Your task to perform on an android device: Empty the shopping cart on amazon.com. Search for alienware area 51 on amazon.com, select the first entry, and add it to the cart. Image 0: 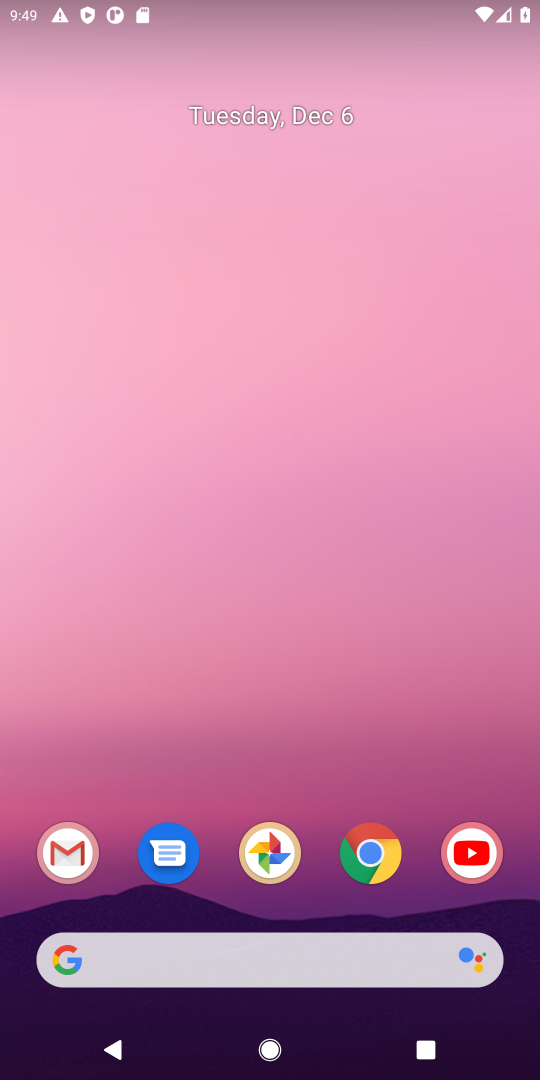
Step 0: click (532, 799)
Your task to perform on an android device: Empty the shopping cart on amazon.com. Search for alienware area 51 on amazon.com, select the first entry, and add it to the cart. Image 1: 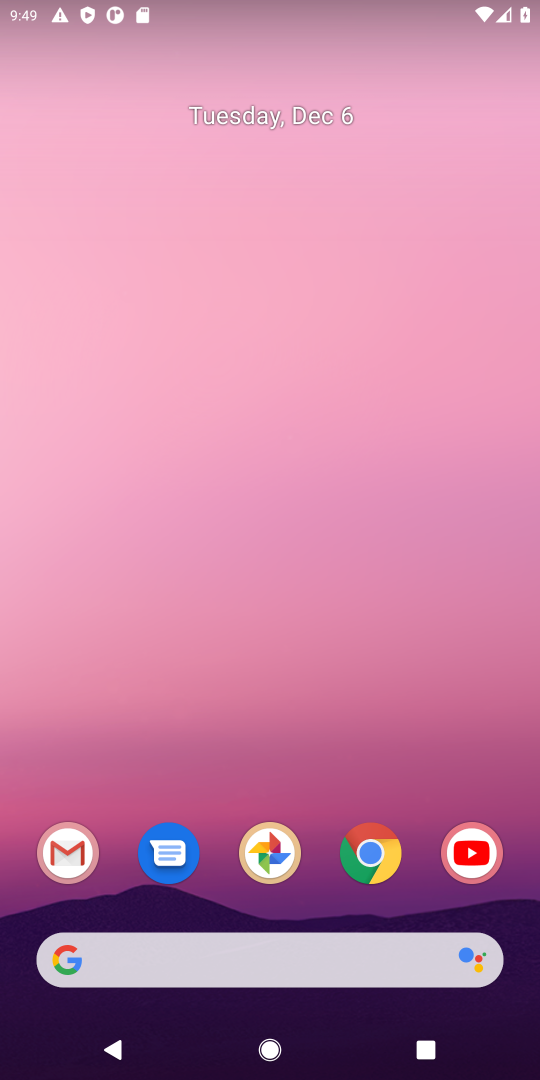
Step 1: click (377, 863)
Your task to perform on an android device: Empty the shopping cart on amazon.com. Search for alienware area 51 on amazon.com, select the first entry, and add it to the cart. Image 2: 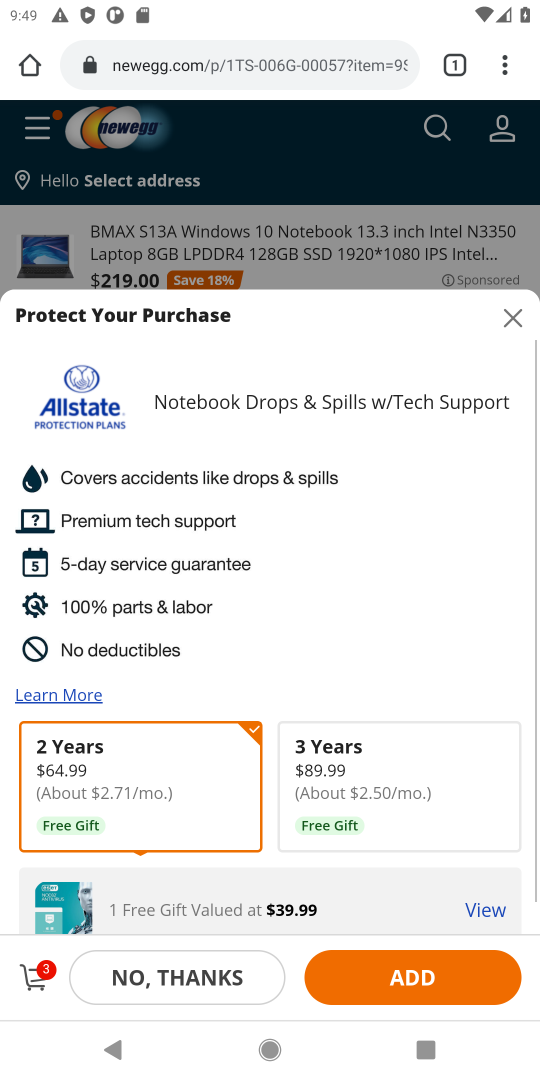
Step 2: click (514, 321)
Your task to perform on an android device: Empty the shopping cart on amazon.com. Search for alienware area 51 on amazon.com, select the first entry, and add it to the cart. Image 3: 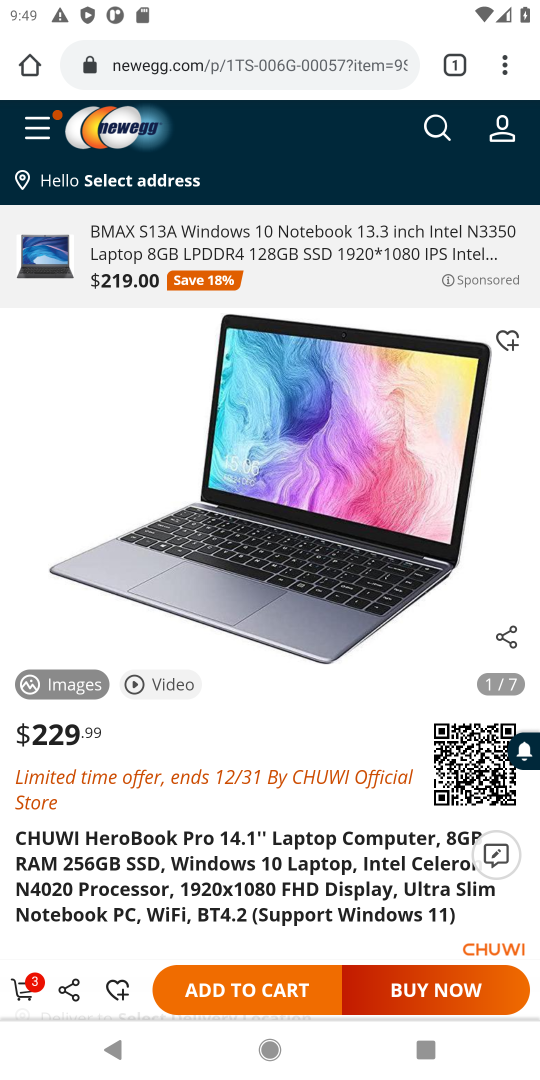
Step 3: click (345, 57)
Your task to perform on an android device: Empty the shopping cart on amazon.com. Search for alienware area 51 on amazon.com, select the first entry, and add it to the cart. Image 4: 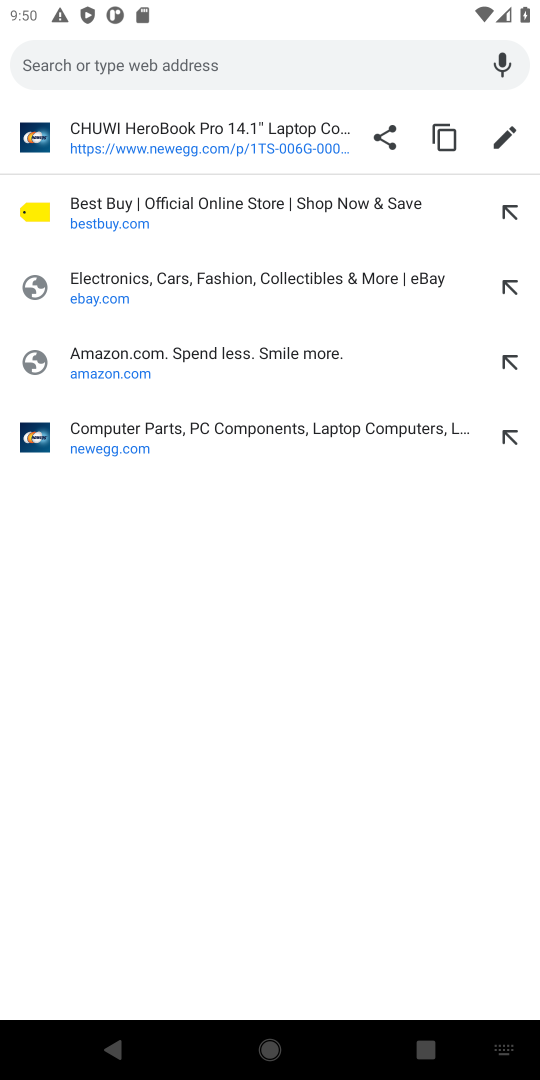
Step 4: click (217, 366)
Your task to perform on an android device: Empty the shopping cart on amazon.com. Search for alienware area 51 on amazon.com, select the first entry, and add it to the cart. Image 5: 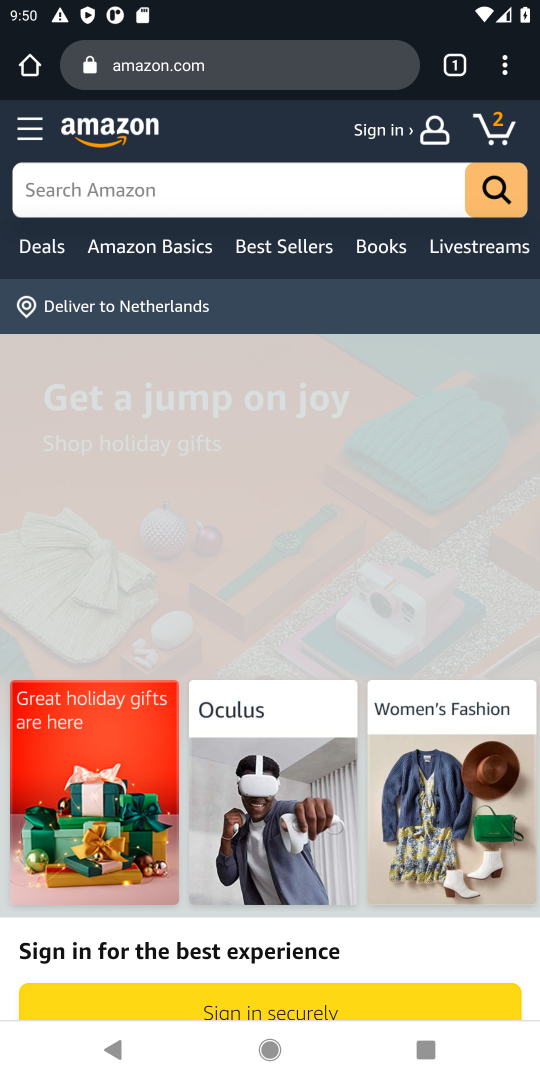
Step 5: click (488, 131)
Your task to perform on an android device: Empty the shopping cart on amazon.com. Search for alienware area 51 on amazon.com, select the first entry, and add it to the cart. Image 6: 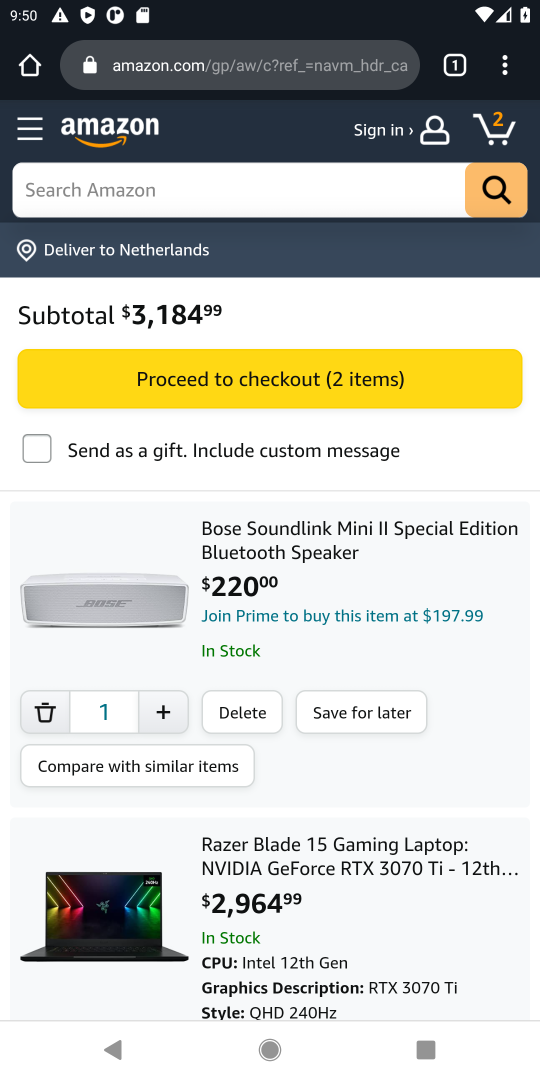
Step 6: click (233, 713)
Your task to perform on an android device: Empty the shopping cart on amazon.com. Search for alienware area 51 on amazon.com, select the first entry, and add it to the cart. Image 7: 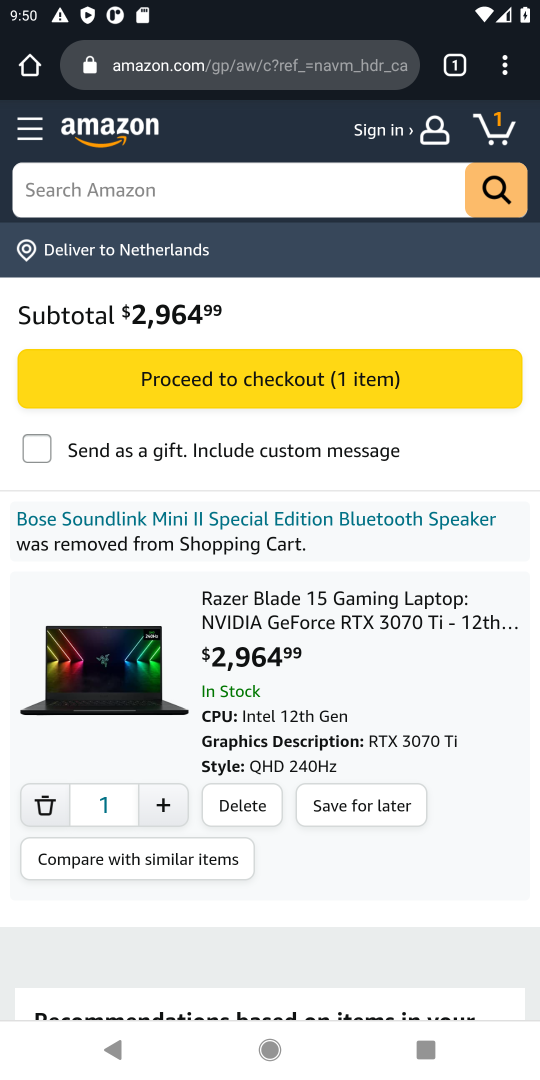
Step 7: click (239, 809)
Your task to perform on an android device: Empty the shopping cart on amazon.com. Search for alienware area 51 on amazon.com, select the first entry, and add it to the cart. Image 8: 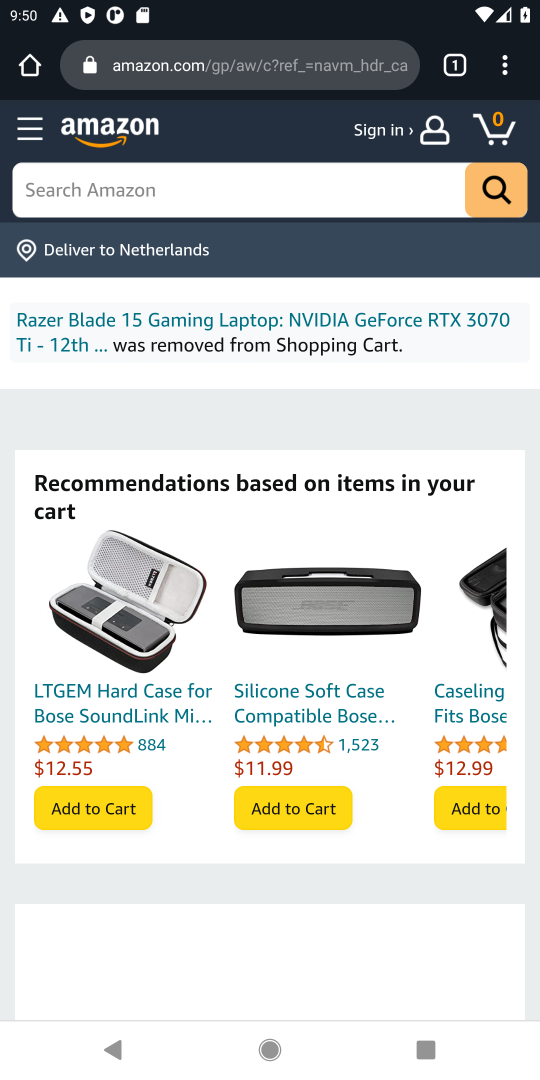
Step 8: click (283, 192)
Your task to perform on an android device: Empty the shopping cart on amazon.com. Search for alienware area 51 on amazon.com, select the first entry, and add it to the cart. Image 9: 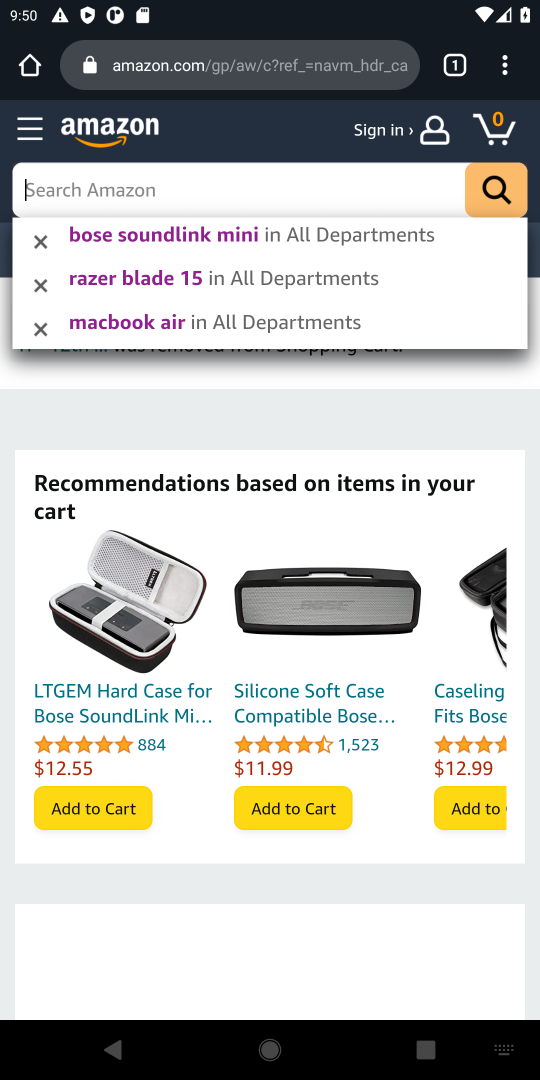
Step 9: click (270, 190)
Your task to perform on an android device: Empty the shopping cart on amazon.com. Search for alienware area 51 on amazon.com, select the first entry, and add it to the cart. Image 10: 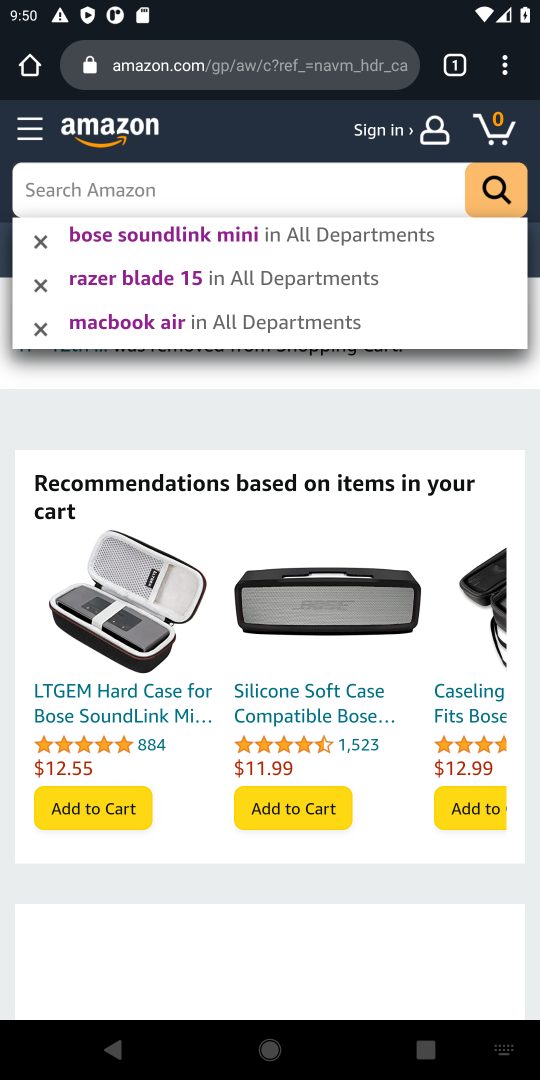
Step 10: type "alienware area 51"
Your task to perform on an android device: Empty the shopping cart on amazon.com. Search for alienware area 51 on amazon.com, select the first entry, and add it to the cart. Image 11: 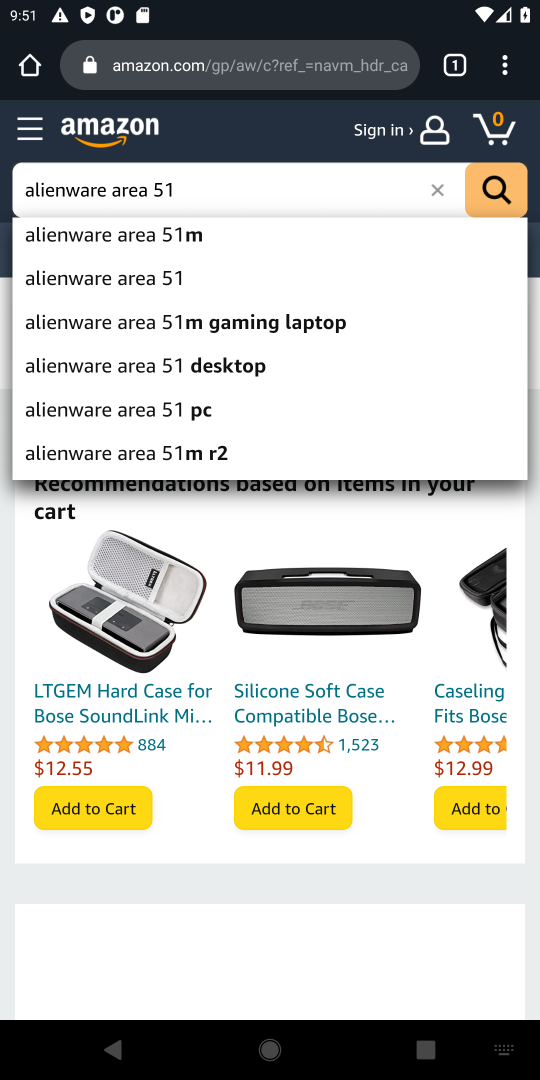
Step 11: click (220, 232)
Your task to perform on an android device: Empty the shopping cart on amazon.com. Search for alienware area 51 on amazon.com, select the first entry, and add it to the cart. Image 12: 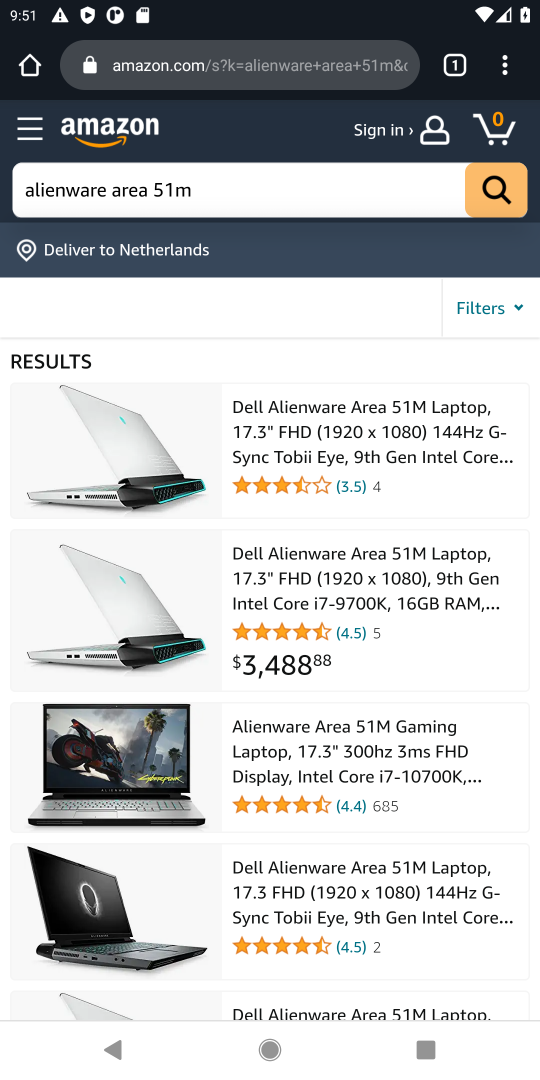
Step 12: click (112, 438)
Your task to perform on an android device: Empty the shopping cart on amazon.com. Search for alienware area 51 on amazon.com, select the first entry, and add it to the cart. Image 13: 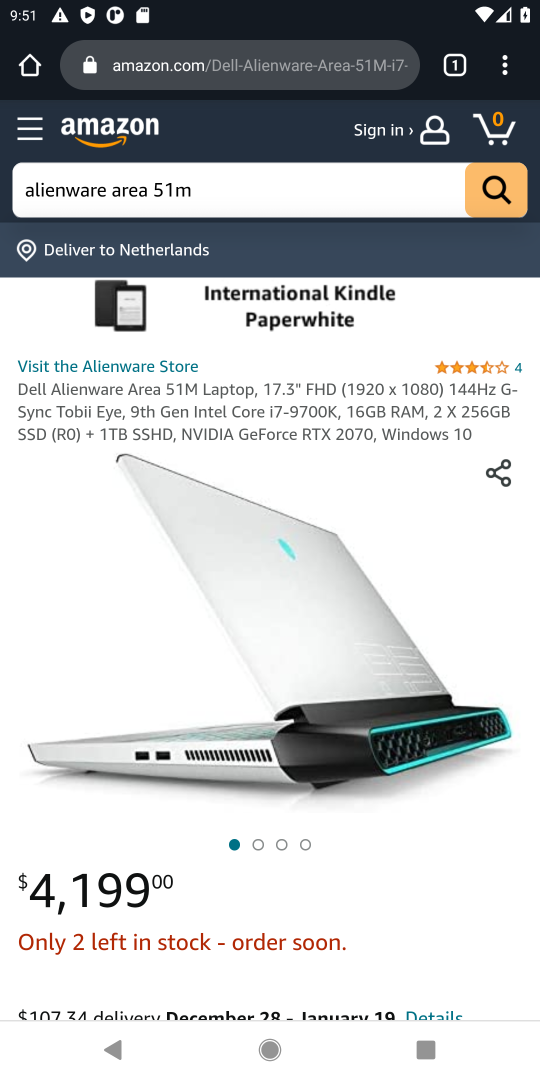
Step 13: drag from (313, 915) to (361, 292)
Your task to perform on an android device: Empty the shopping cart on amazon.com. Search for alienware area 51 on amazon.com, select the first entry, and add it to the cart. Image 14: 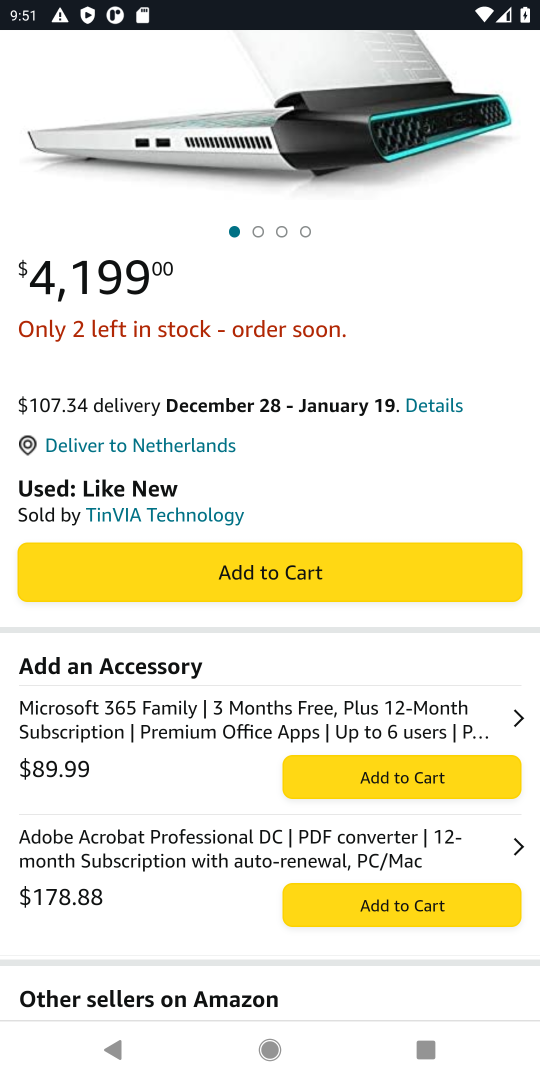
Step 14: click (298, 575)
Your task to perform on an android device: Empty the shopping cart on amazon.com. Search for alienware area 51 on amazon.com, select the first entry, and add it to the cart. Image 15: 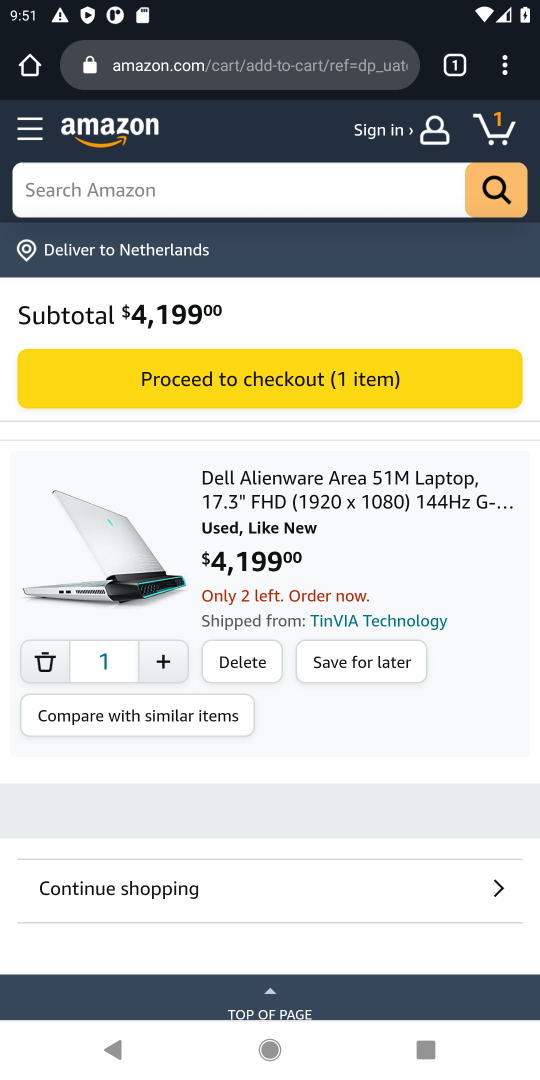
Step 15: task complete